Your task to perform on an android device: Open Google Chrome and open the bookmarks view Image 0: 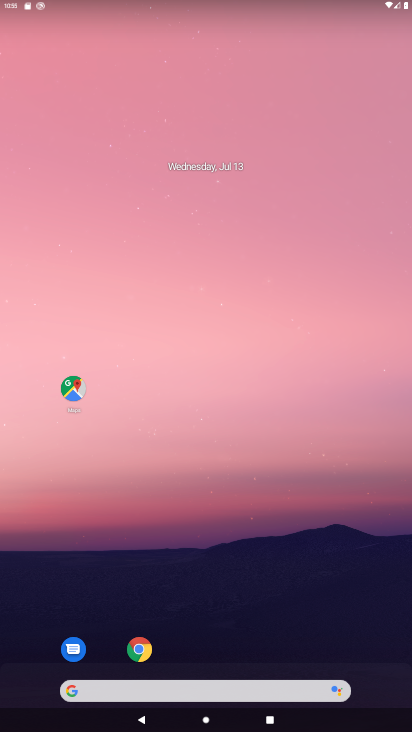
Step 0: click (162, 657)
Your task to perform on an android device: Open Google Chrome and open the bookmarks view Image 1: 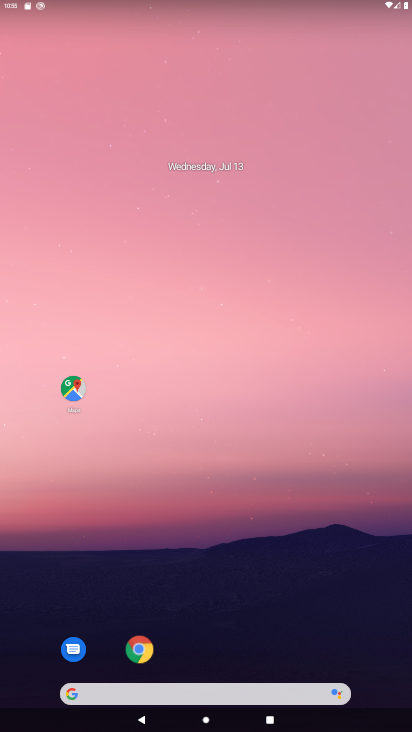
Step 1: click (149, 656)
Your task to perform on an android device: Open Google Chrome and open the bookmarks view Image 2: 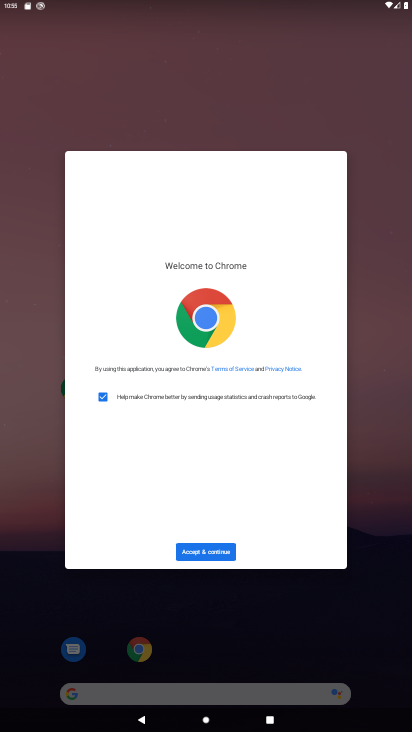
Step 2: click (220, 556)
Your task to perform on an android device: Open Google Chrome and open the bookmarks view Image 3: 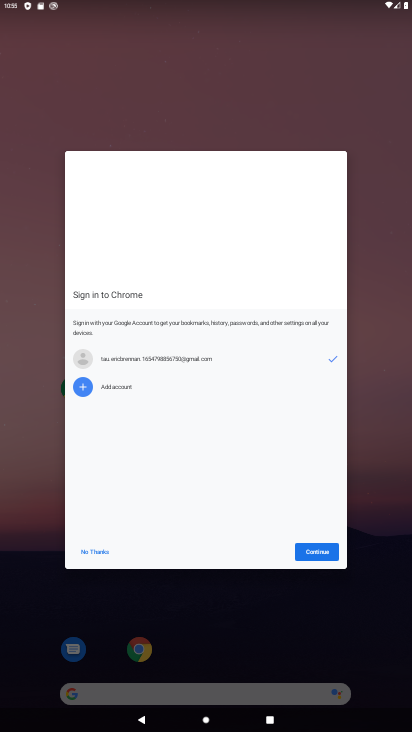
Step 3: click (329, 550)
Your task to perform on an android device: Open Google Chrome and open the bookmarks view Image 4: 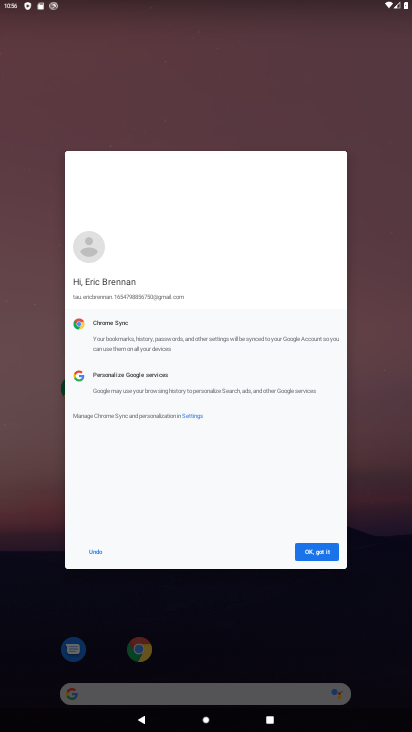
Step 4: click (329, 550)
Your task to perform on an android device: Open Google Chrome and open the bookmarks view Image 5: 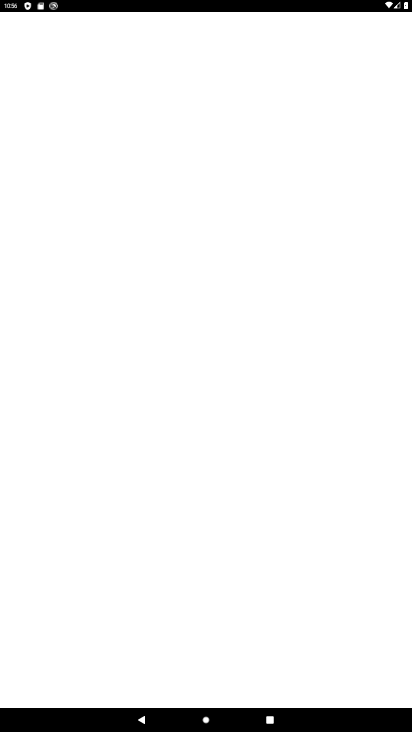
Step 5: click (329, 550)
Your task to perform on an android device: Open Google Chrome and open the bookmarks view Image 6: 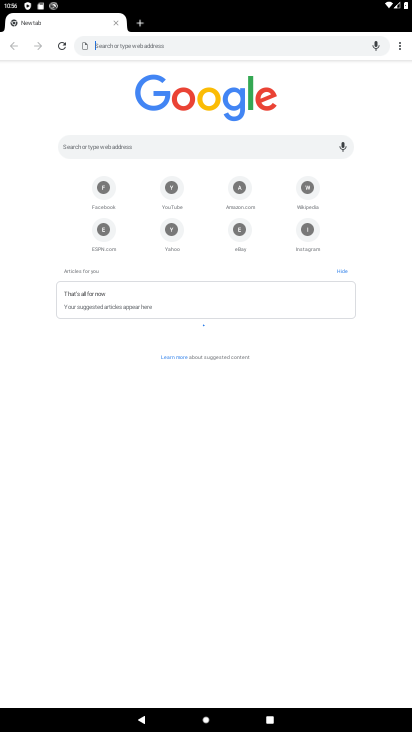
Step 6: task complete